Your task to perform on an android device: Open notification settings Image 0: 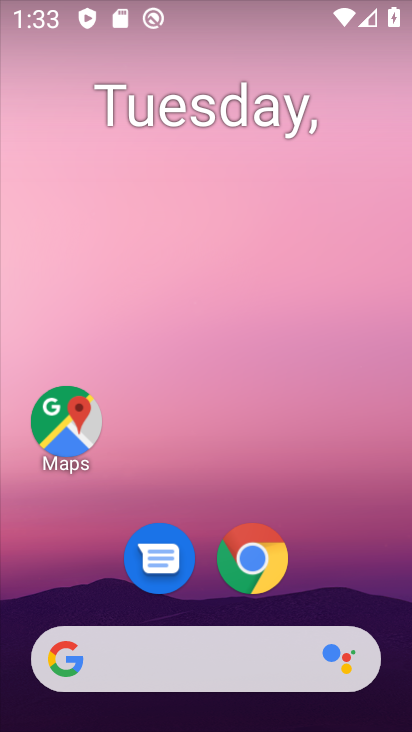
Step 0: drag from (194, 625) to (339, 27)
Your task to perform on an android device: Open notification settings Image 1: 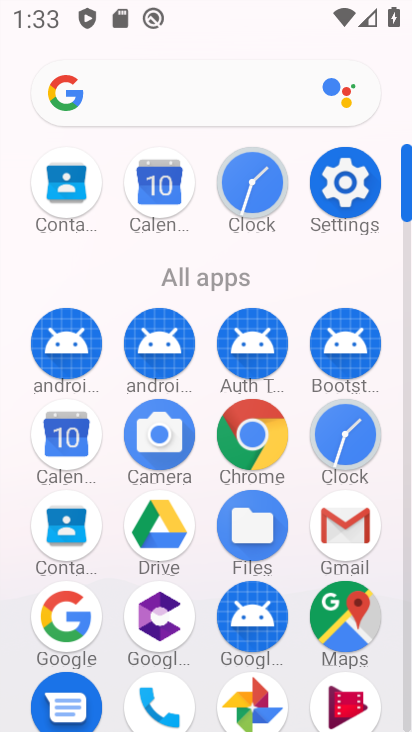
Step 1: click (343, 163)
Your task to perform on an android device: Open notification settings Image 2: 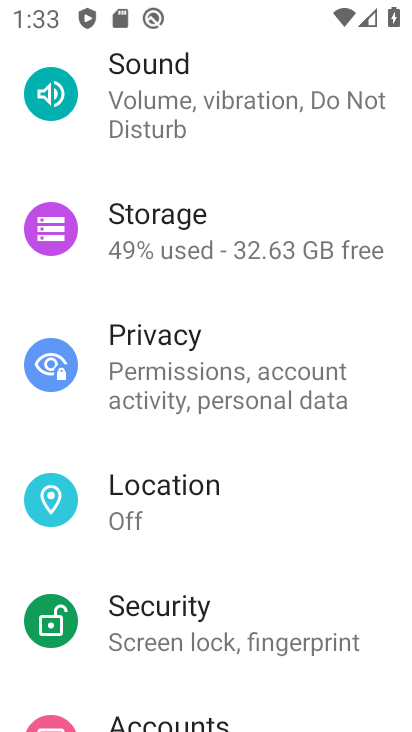
Step 2: drag from (250, 88) to (213, 665)
Your task to perform on an android device: Open notification settings Image 3: 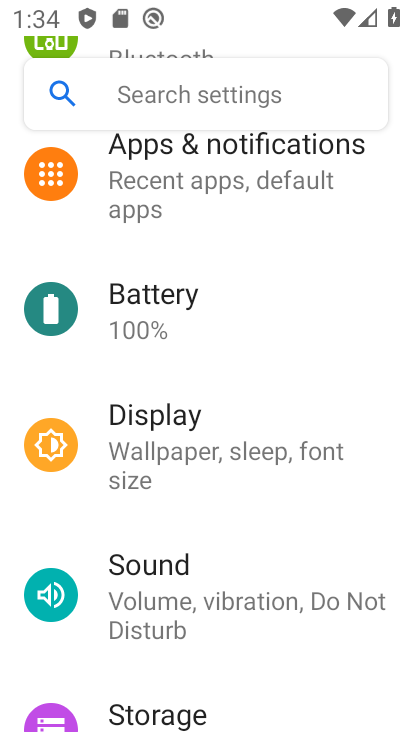
Step 3: drag from (262, 236) to (235, 632)
Your task to perform on an android device: Open notification settings Image 4: 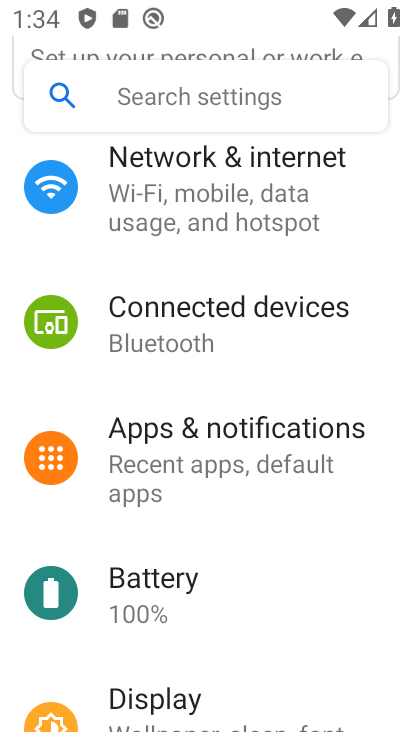
Step 4: click (211, 454)
Your task to perform on an android device: Open notification settings Image 5: 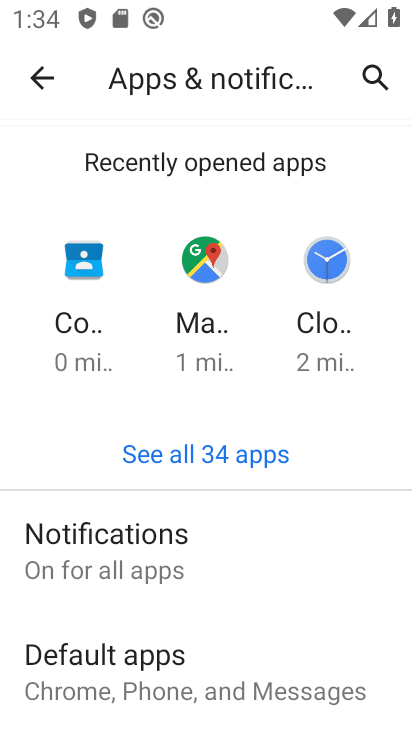
Step 5: task complete